Your task to perform on an android device: Open my contact list Image 0: 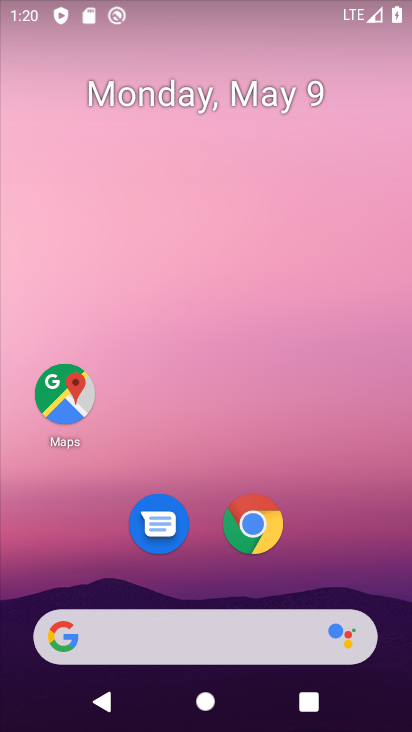
Step 0: drag from (61, 530) to (139, 52)
Your task to perform on an android device: Open my contact list Image 1: 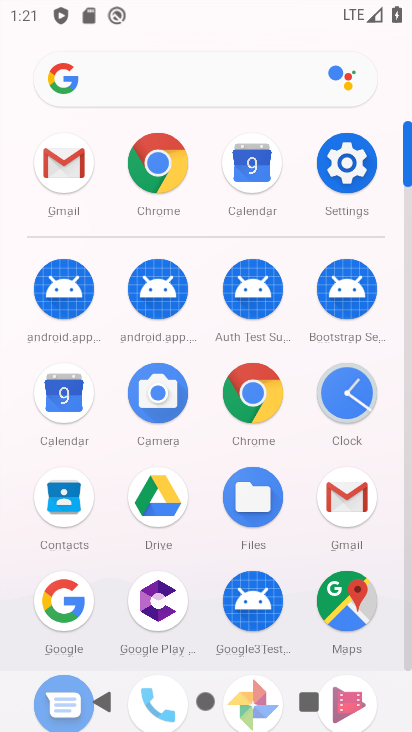
Step 1: click (67, 500)
Your task to perform on an android device: Open my contact list Image 2: 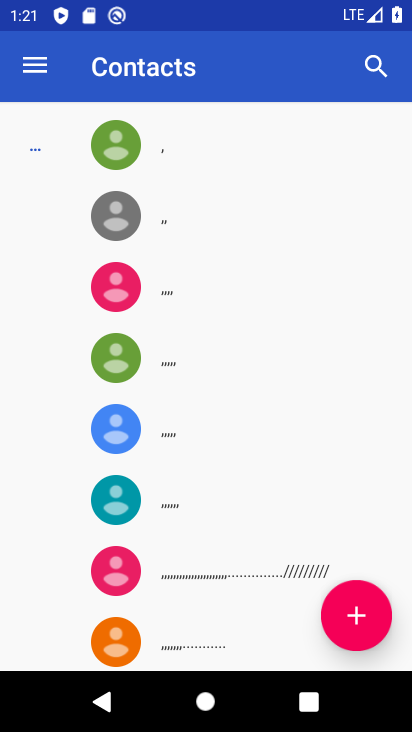
Step 2: task complete